Your task to perform on an android device: open app "PUBG MOBILE" (install if not already installed), go to login, and select forgot password Image 0: 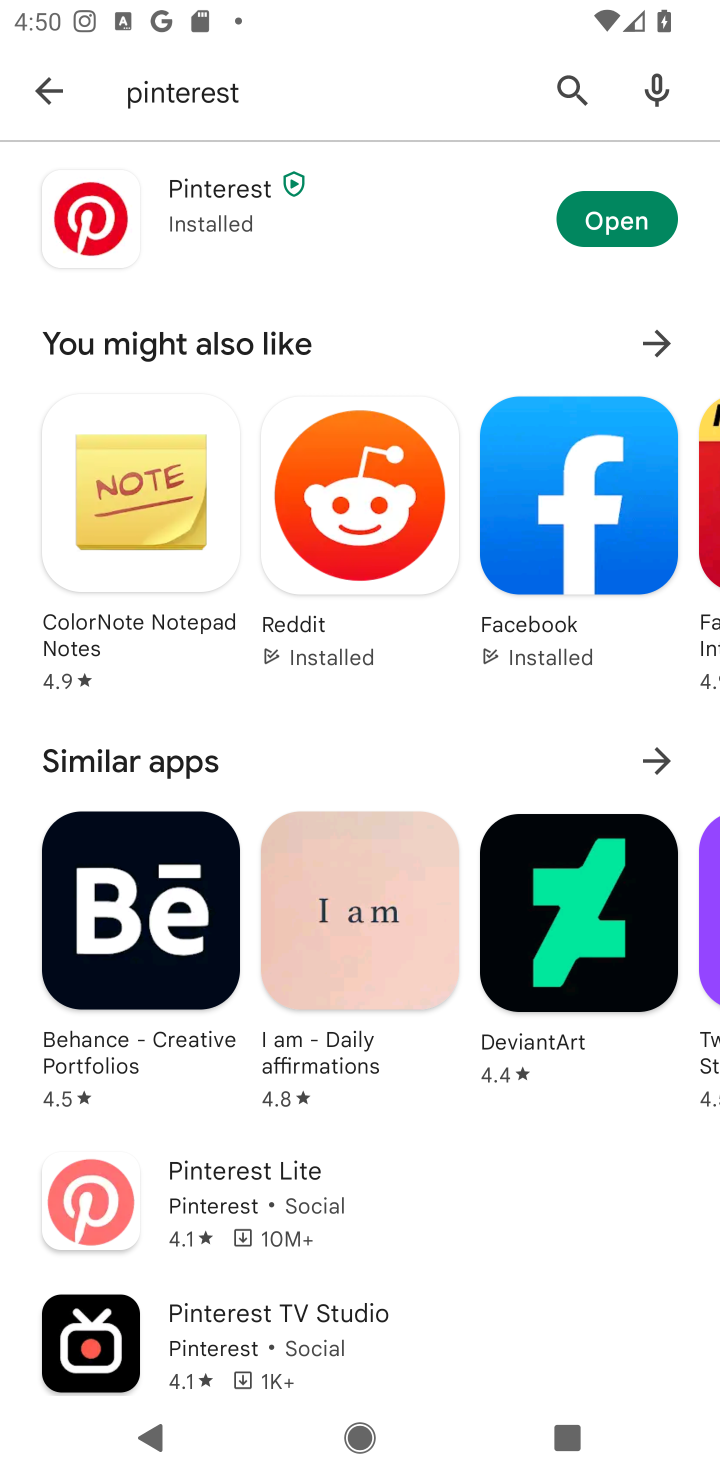
Step 0: press home button
Your task to perform on an android device: open app "PUBG MOBILE" (install if not already installed), go to login, and select forgot password Image 1: 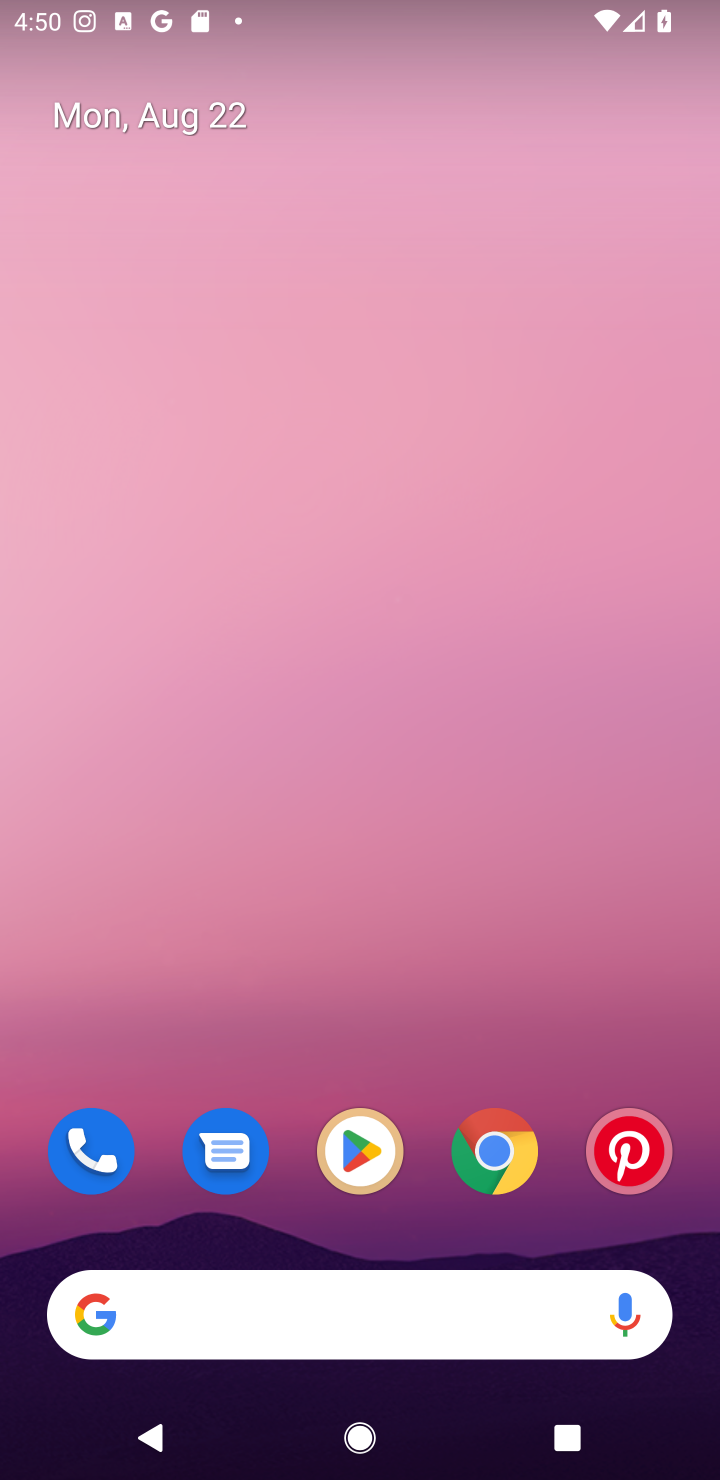
Step 1: click (365, 1147)
Your task to perform on an android device: open app "PUBG MOBILE" (install if not already installed), go to login, and select forgot password Image 2: 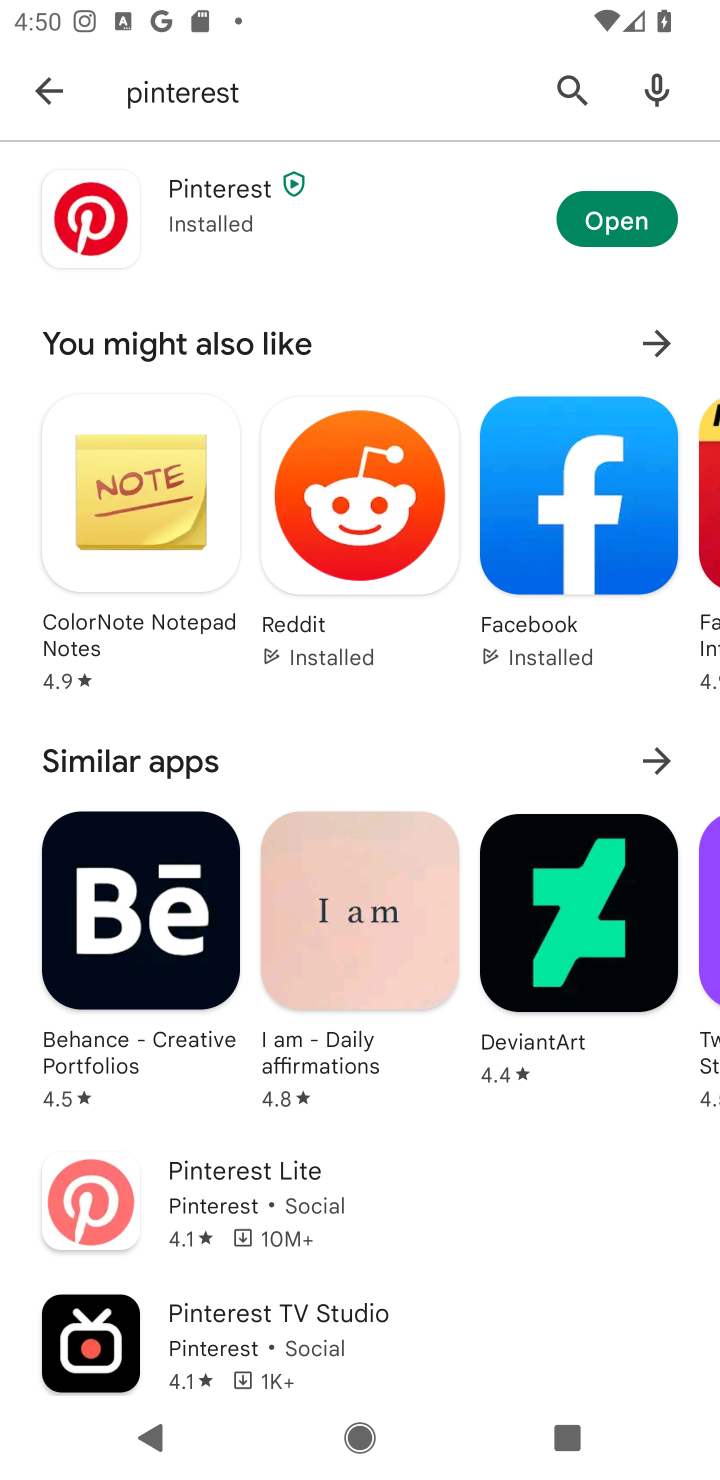
Step 2: click (563, 79)
Your task to perform on an android device: open app "PUBG MOBILE" (install if not already installed), go to login, and select forgot password Image 3: 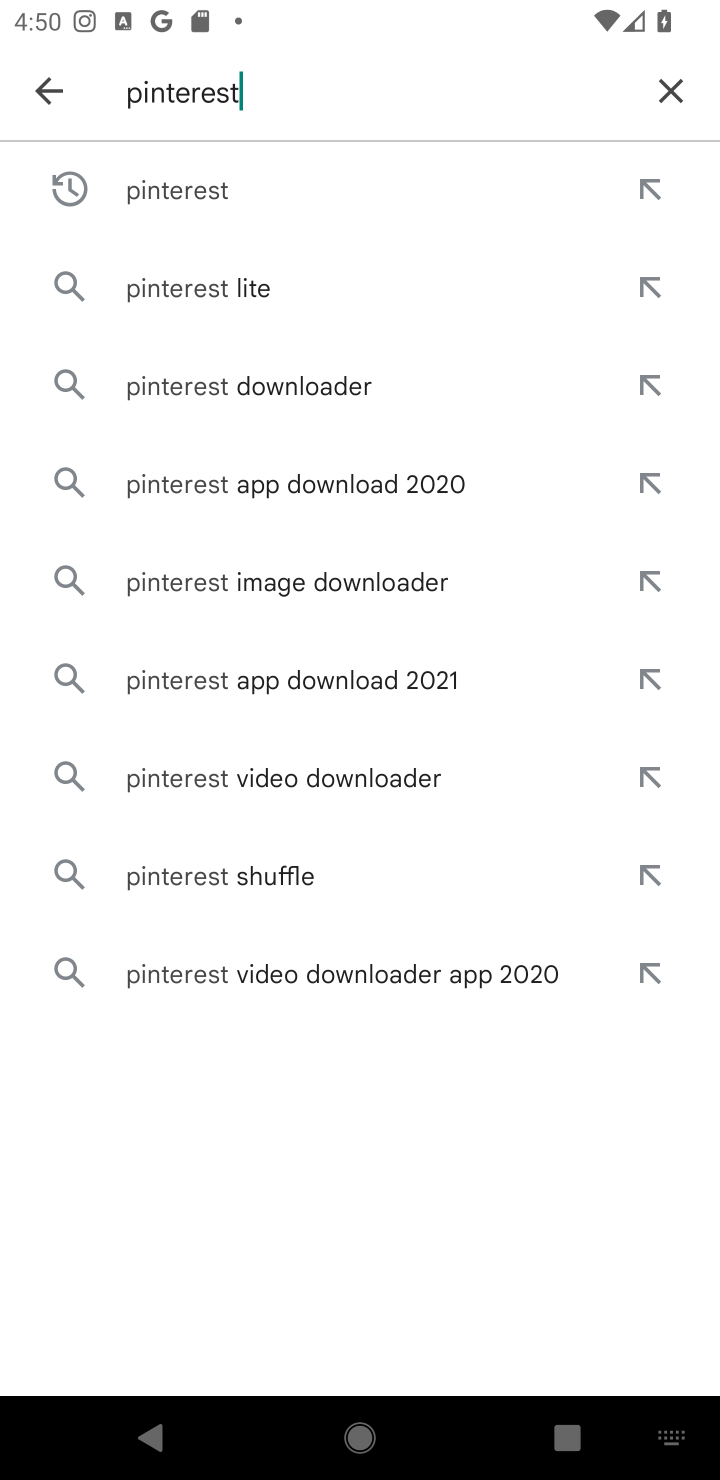
Step 3: click (682, 75)
Your task to perform on an android device: open app "PUBG MOBILE" (install if not already installed), go to login, and select forgot password Image 4: 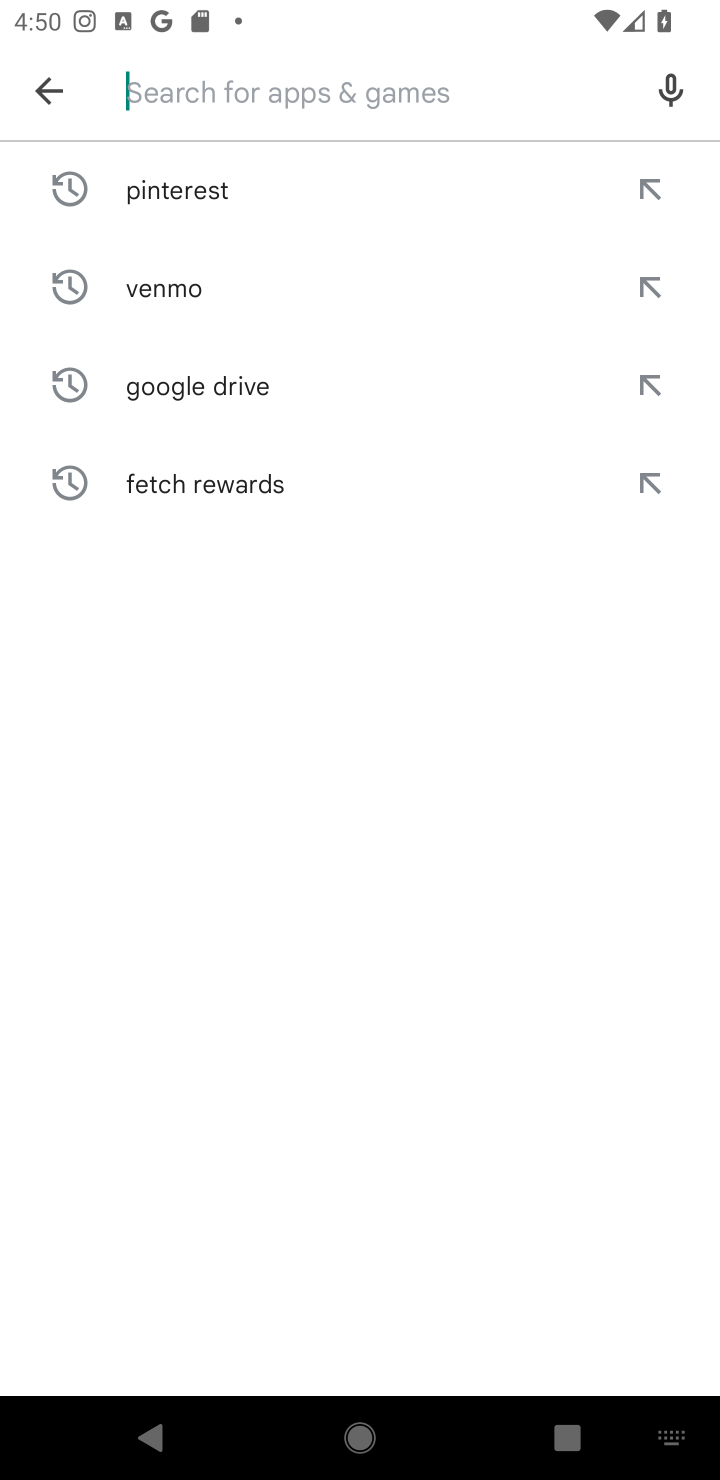
Step 4: type "PUBG MOBILE"
Your task to perform on an android device: open app "PUBG MOBILE" (install if not already installed), go to login, and select forgot password Image 5: 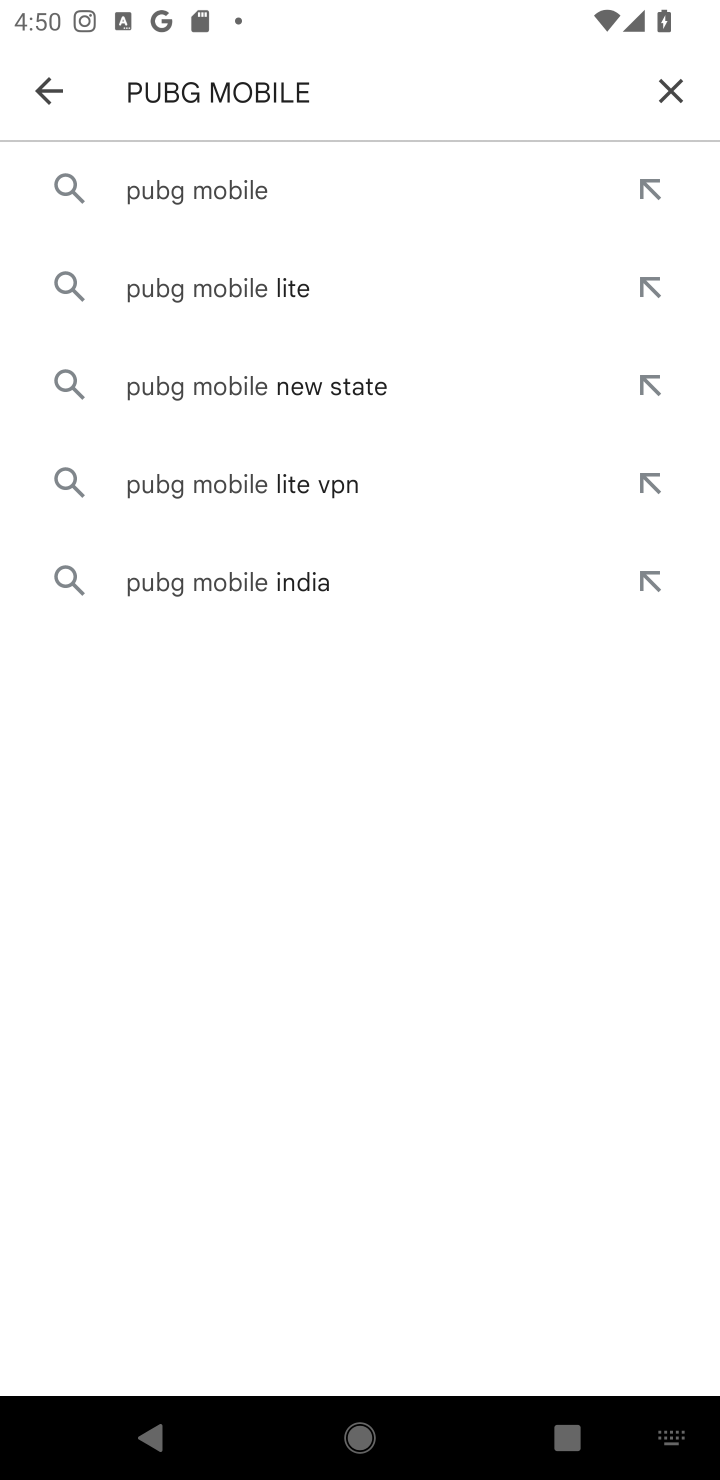
Step 5: click (217, 196)
Your task to perform on an android device: open app "PUBG MOBILE" (install if not already installed), go to login, and select forgot password Image 6: 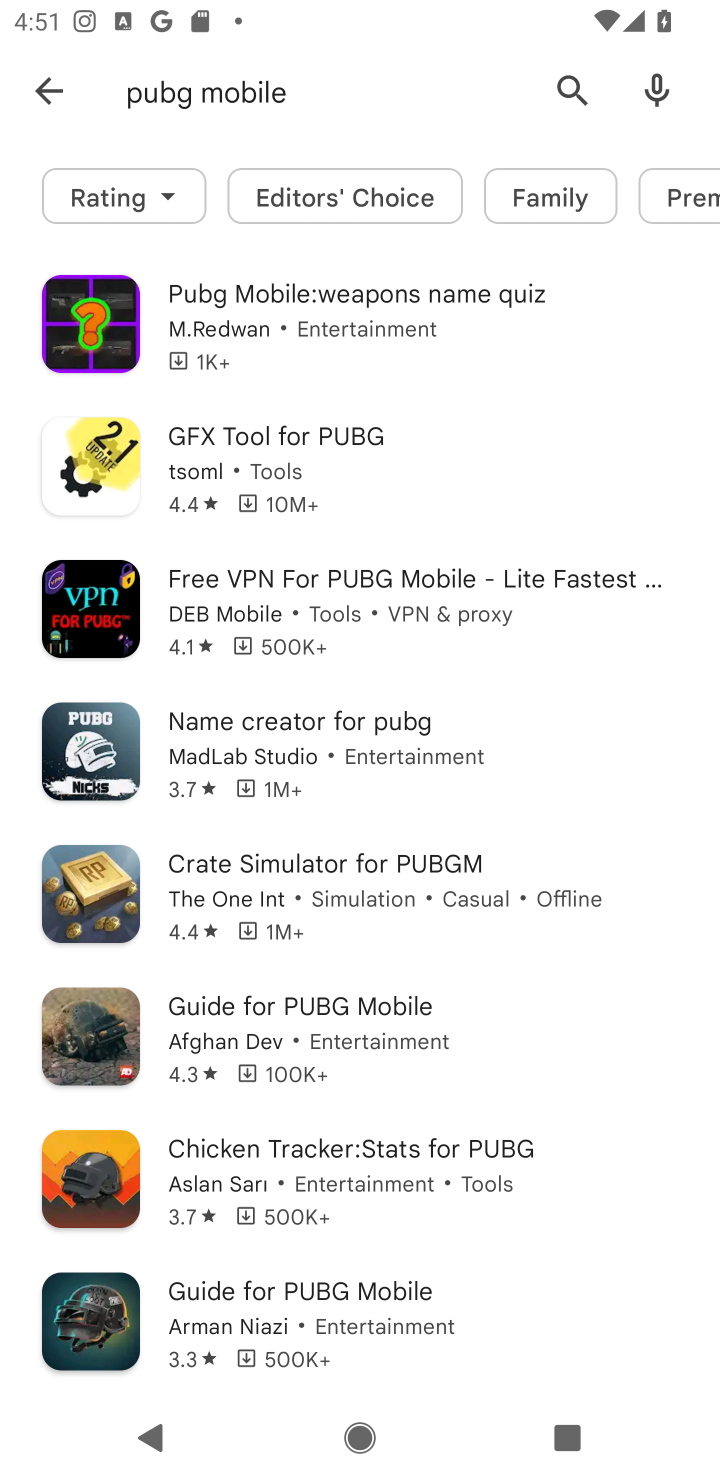
Step 6: click (410, 307)
Your task to perform on an android device: open app "PUBG MOBILE" (install if not already installed), go to login, and select forgot password Image 7: 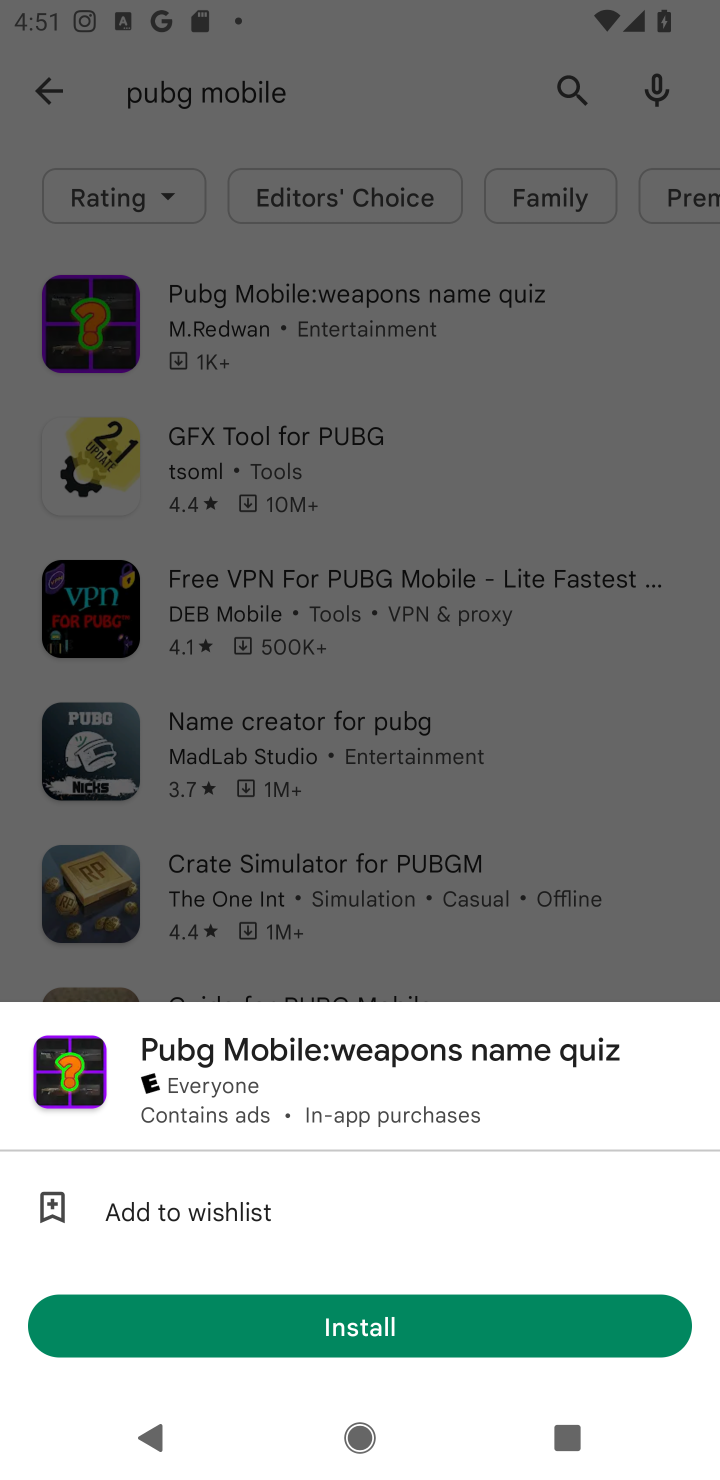
Step 7: click (339, 1321)
Your task to perform on an android device: open app "PUBG MOBILE" (install if not already installed), go to login, and select forgot password Image 8: 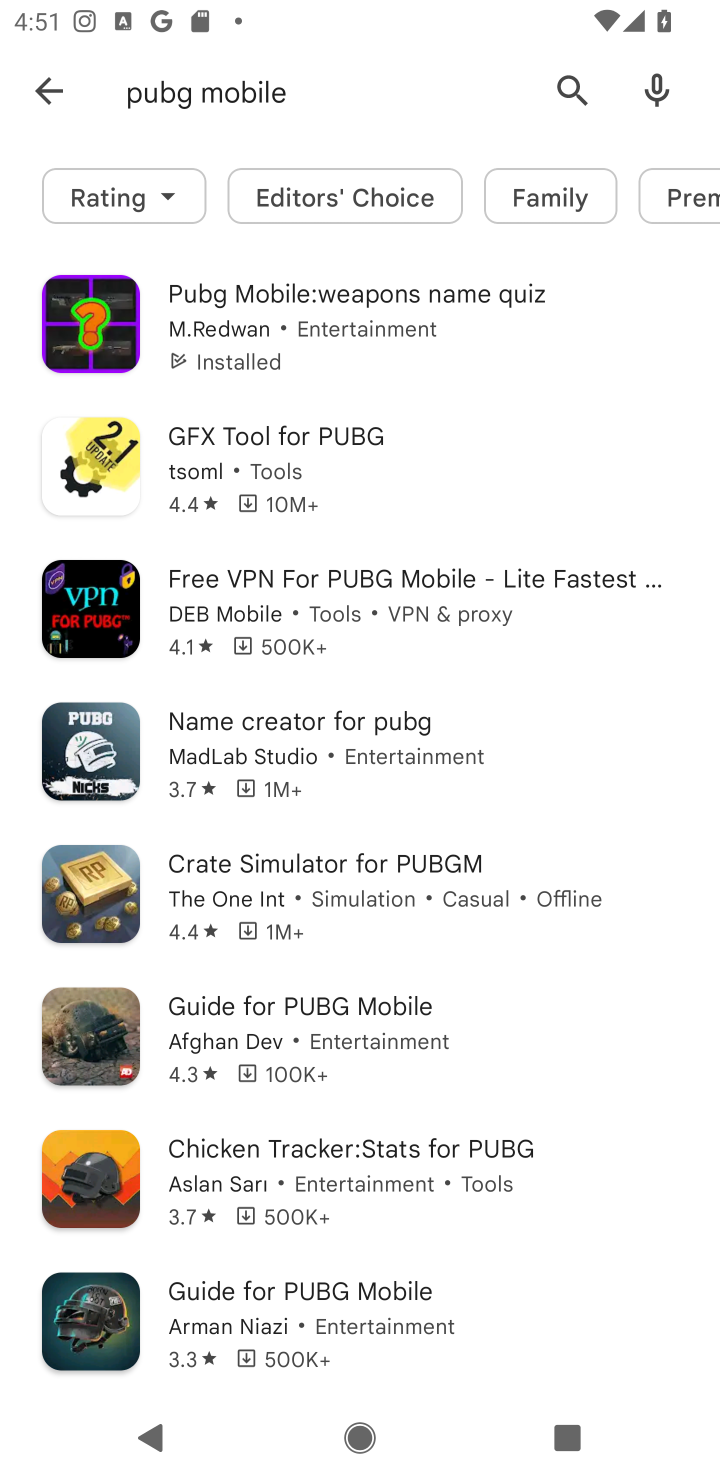
Step 8: click (258, 315)
Your task to perform on an android device: open app "PUBG MOBILE" (install if not already installed), go to login, and select forgot password Image 9: 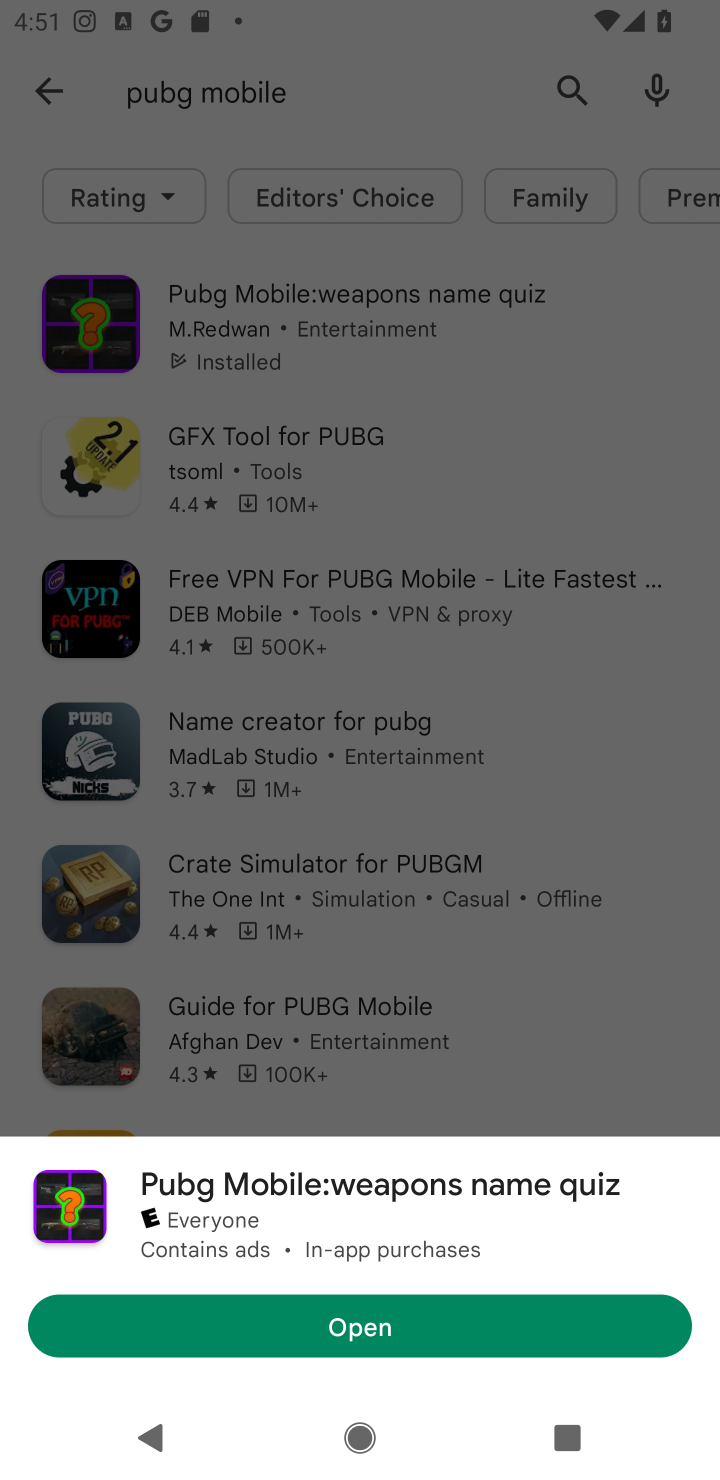
Step 9: click (352, 1316)
Your task to perform on an android device: open app "PUBG MOBILE" (install if not already installed), go to login, and select forgot password Image 10: 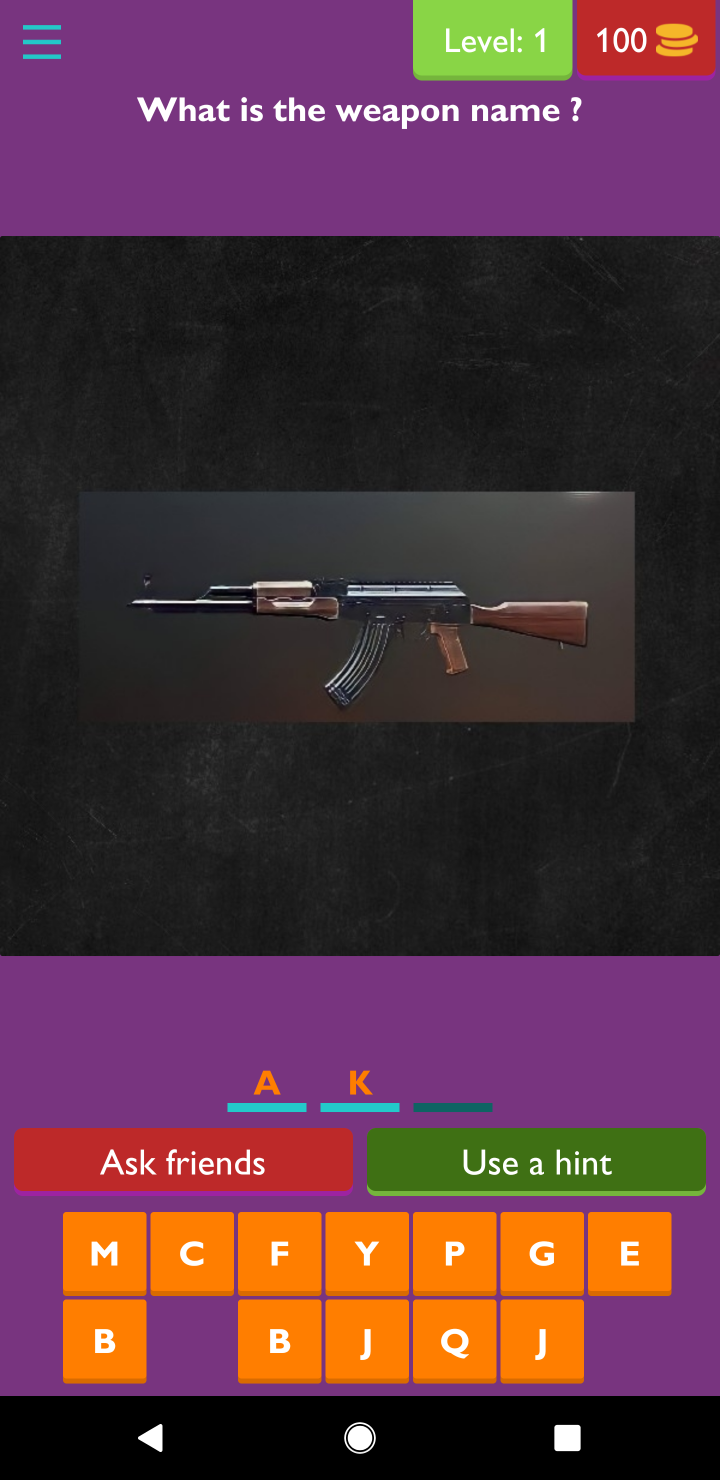
Step 10: task complete